Your task to perform on an android device: Go to Yahoo.com Image 0: 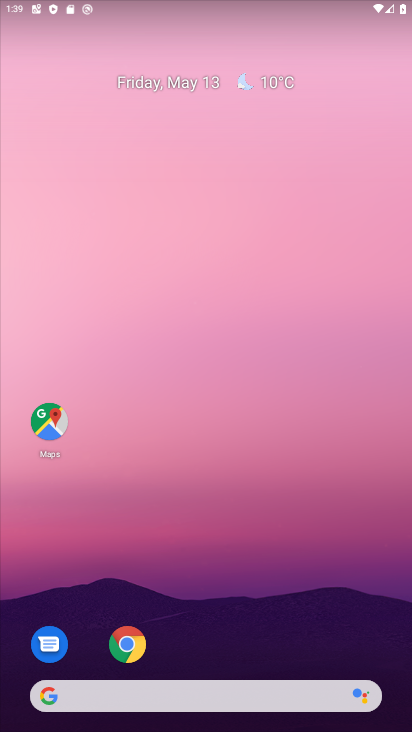
Step 0: drag from (324, 685) to (327, 61)
Your task to perform on an android device: Go to Yahoo.com Image 1: 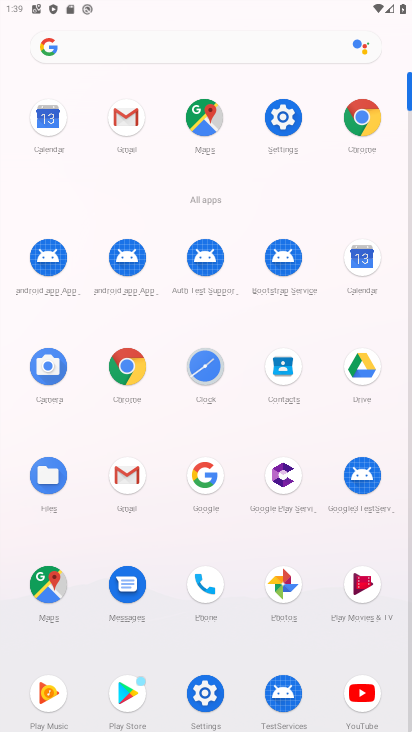
Step 1: click (125, 374)
Your task to perform on an android device: Go to Yahoo.com Image 2: 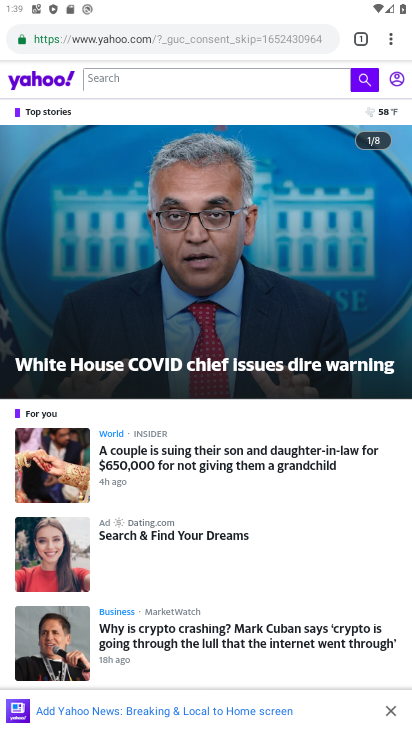
Step 2: task complete